Your task to perform on an android device: toggle pop-ups in chrome Image 0: 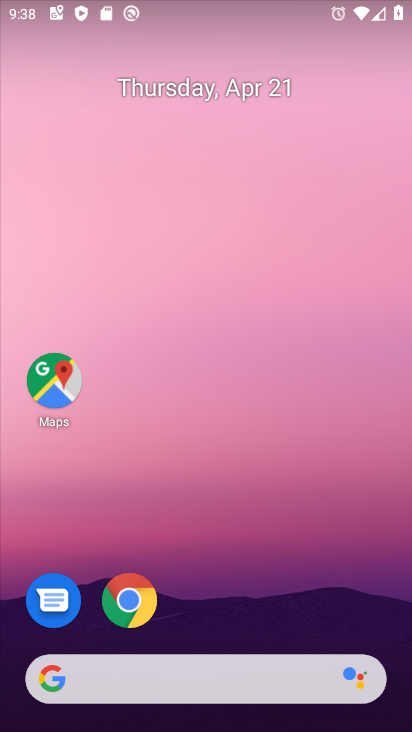
Step 0: click (130, 605)
Your task to perform on an android device: toggle pop-ups in chrome Image 1: 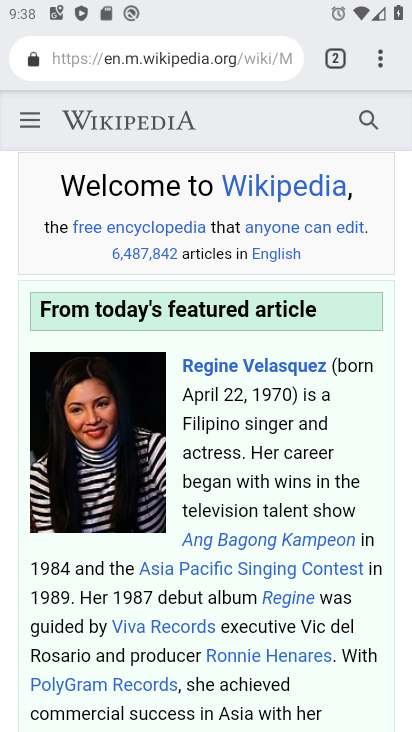
Step 1: click (379, 58)
Your task to perform on an android device: toggle pop-ups in chrome Image 2: 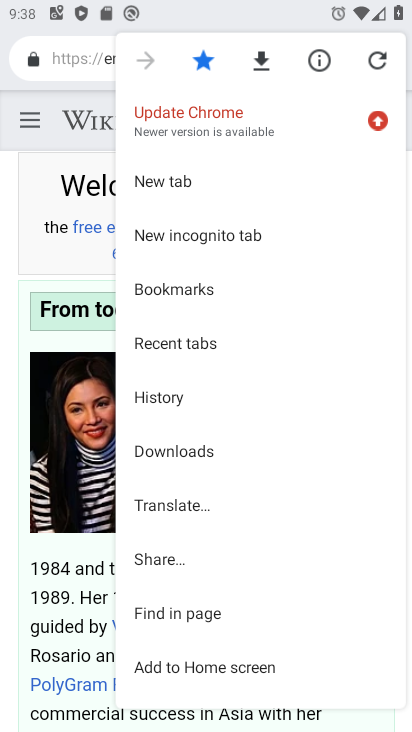
Step 2: drag from (253, 570) to (237, 243)
Your task to perform on an android device: toggle pop-ups in chrome Image 3: 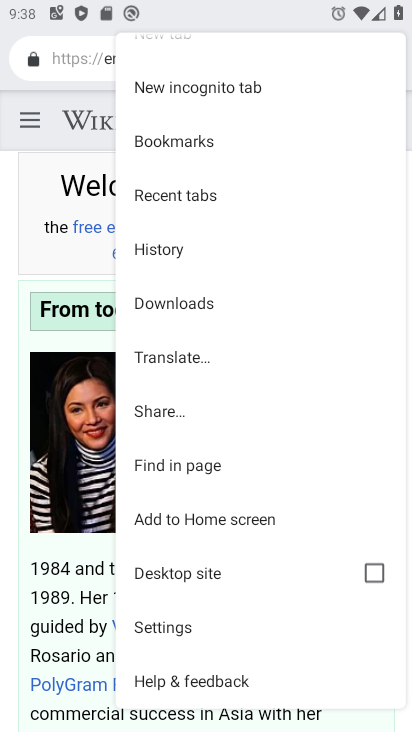
Step 3: click (172, 626)
Your task to perform on an android device: toggle pop-ups in chrome Image 4: 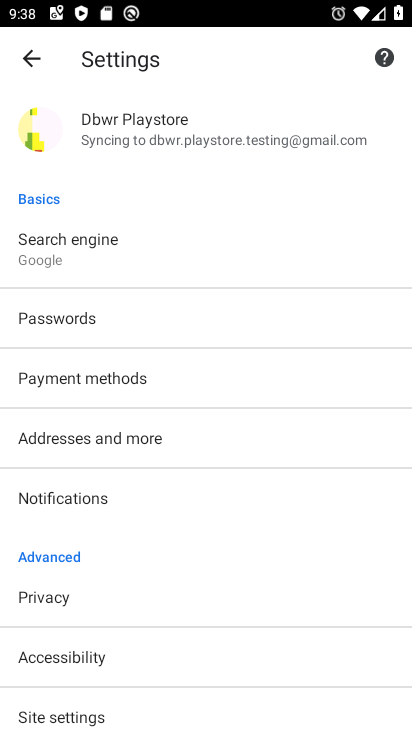
Step 4: click (110, 710)
Your task to perform on an android device: toggle pop-ups in chrome Image 5: 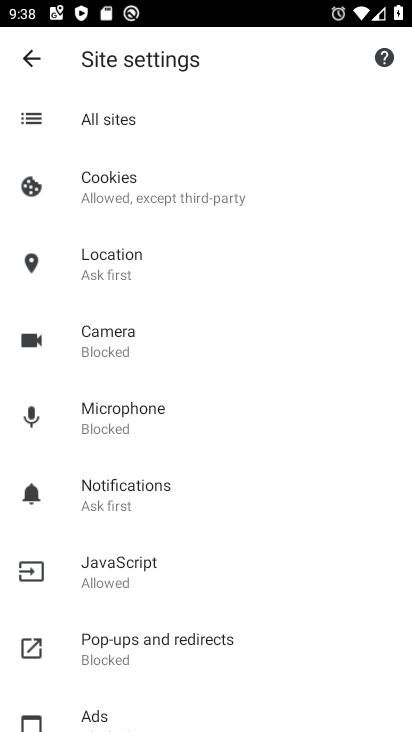
Step 5: click (171, 647)
Your task to perform on an android device: toggle pop-ups in chrome Image 6: 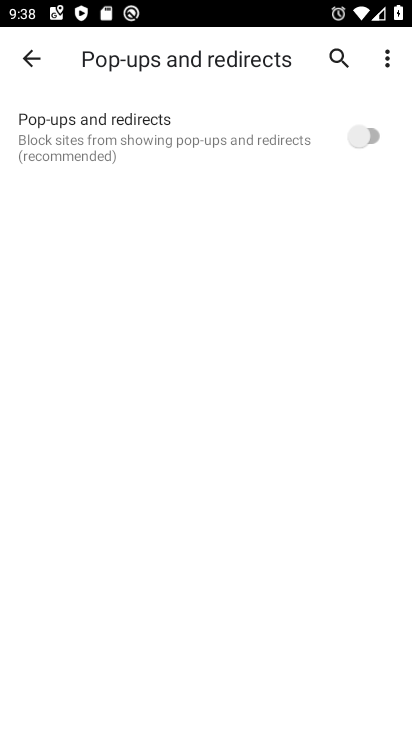
Step 6: click (364, 141)
Your task to perform on an android device: toggle pop-ups in chrome Image 7: 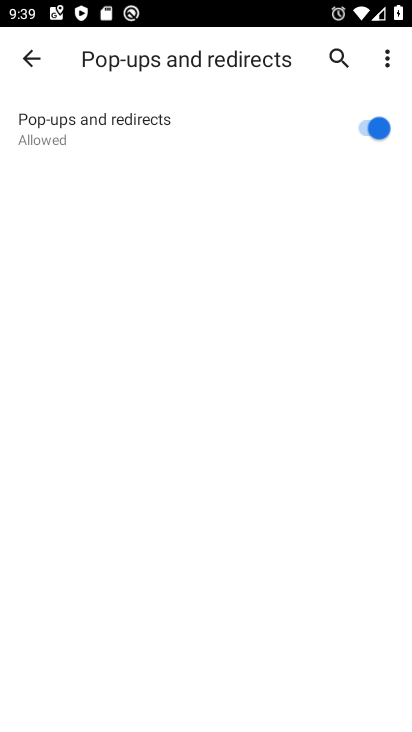
Step 7: task complete